Your task to perform on an android device: Show me popular videos on Youtube Image 0: 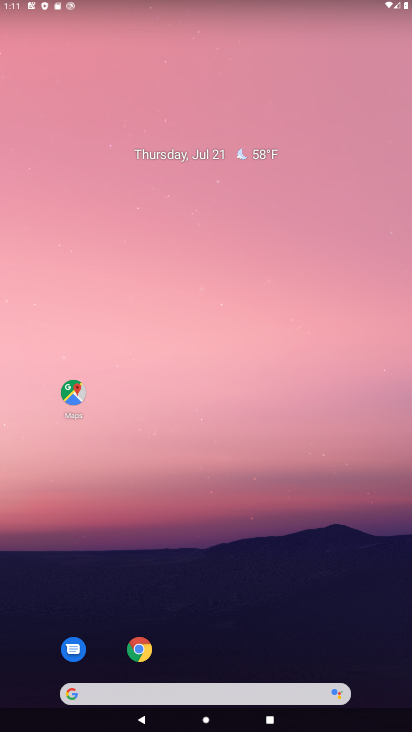
Step 0: drag from (285, 634) to (207, 168)
Your task to perform on an android device: Show me popular videos on Youtube Image 1: 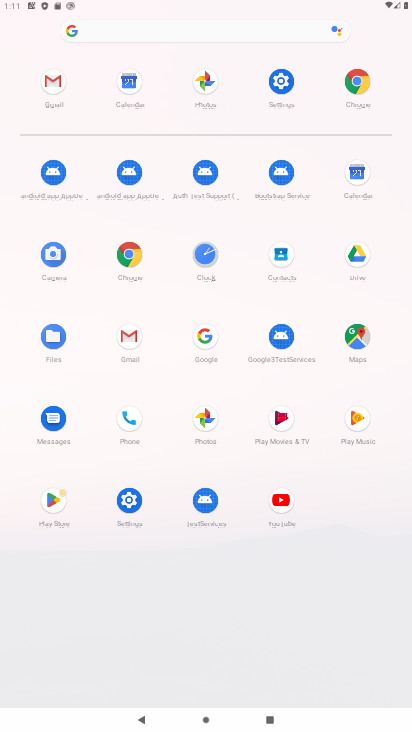
Step 1: click (280, 501)
Your task to perform on an android device: Show me popular videos on Youtube Image 2: 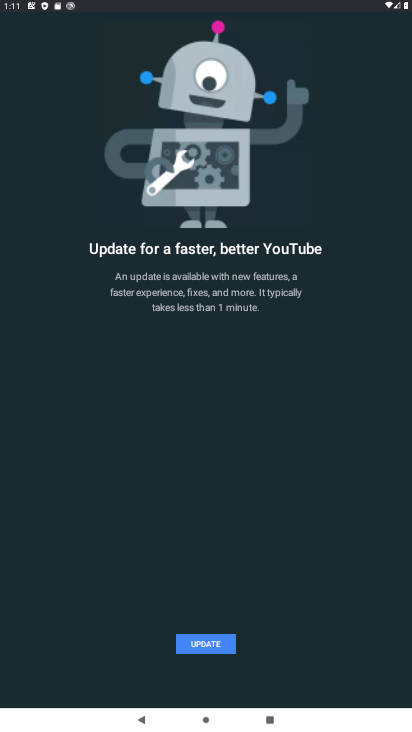
Step 2: click (199, 639)
Your task to perform on an android device: Show me popular videos on Youtube Image 3: 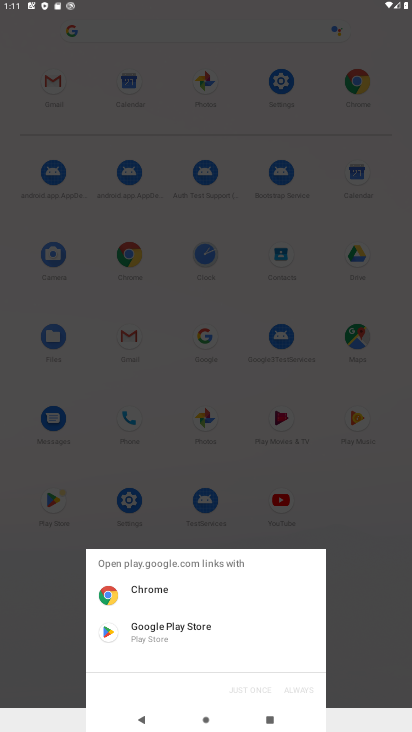
Step 3: click (199, 639)
Your task to perform on an android device: Show me popular videos on Youtube Image 4: 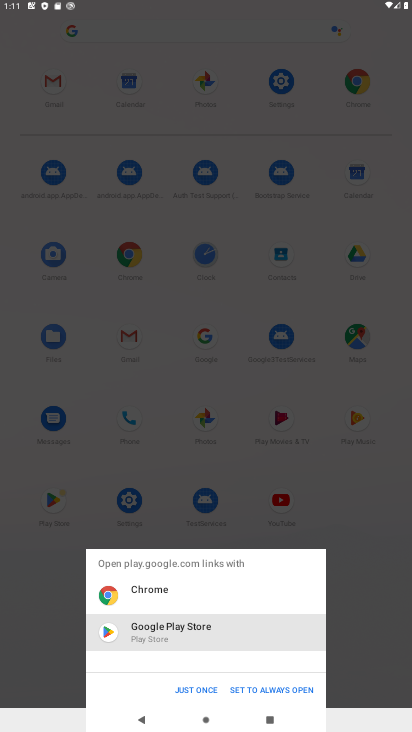
Step 4: click (202, 687)
Your task to perform on an android device: Show me popular videos on Youtube Image 5: 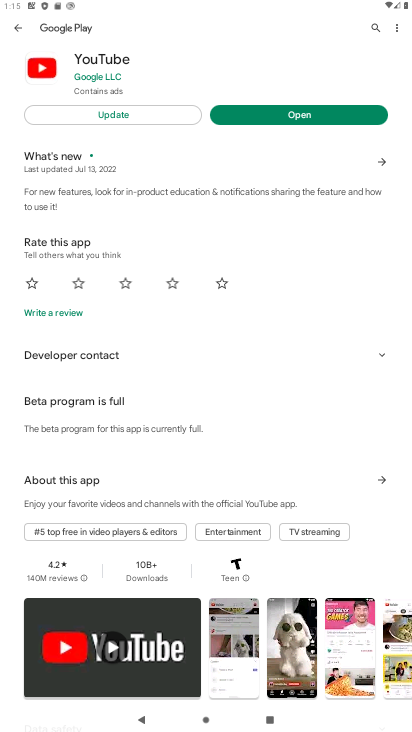
Step 5: task complete